Your task to perform on an android device: What's the weather? Image 0: 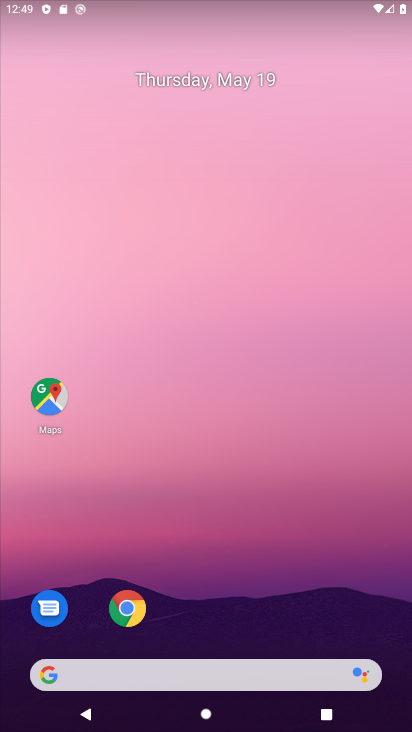
Step 0: click (195, 674)
Your task to perform on an android device: What's the weather? Image 1: 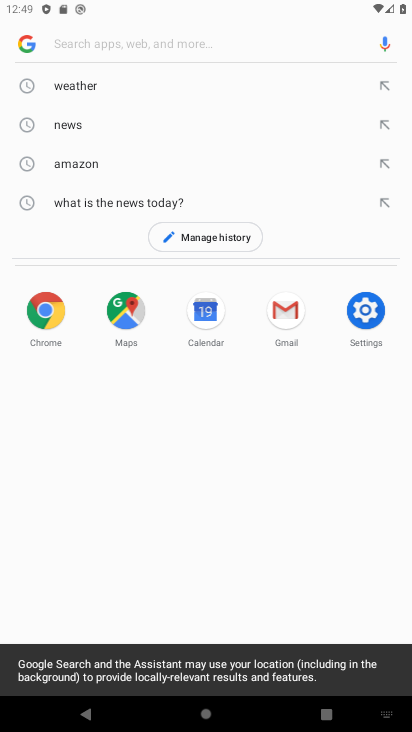
Step 1: click (91, 85)
Your task to perform on an android device: What's the weather? Image 2: 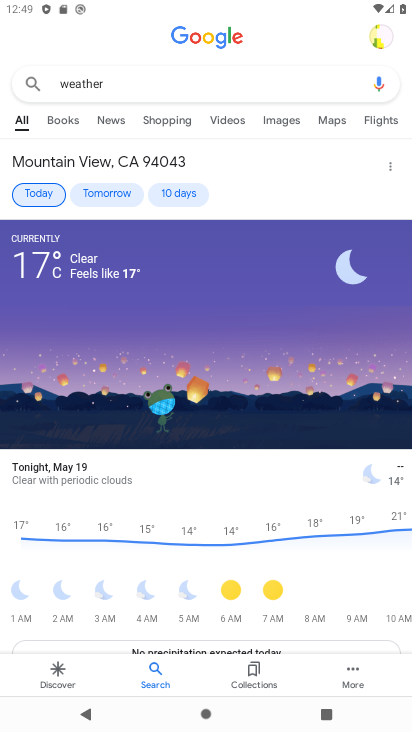
Step 2: task complete